Your task to perform on an android device: install app "Microsoft Outlook" Image 0: 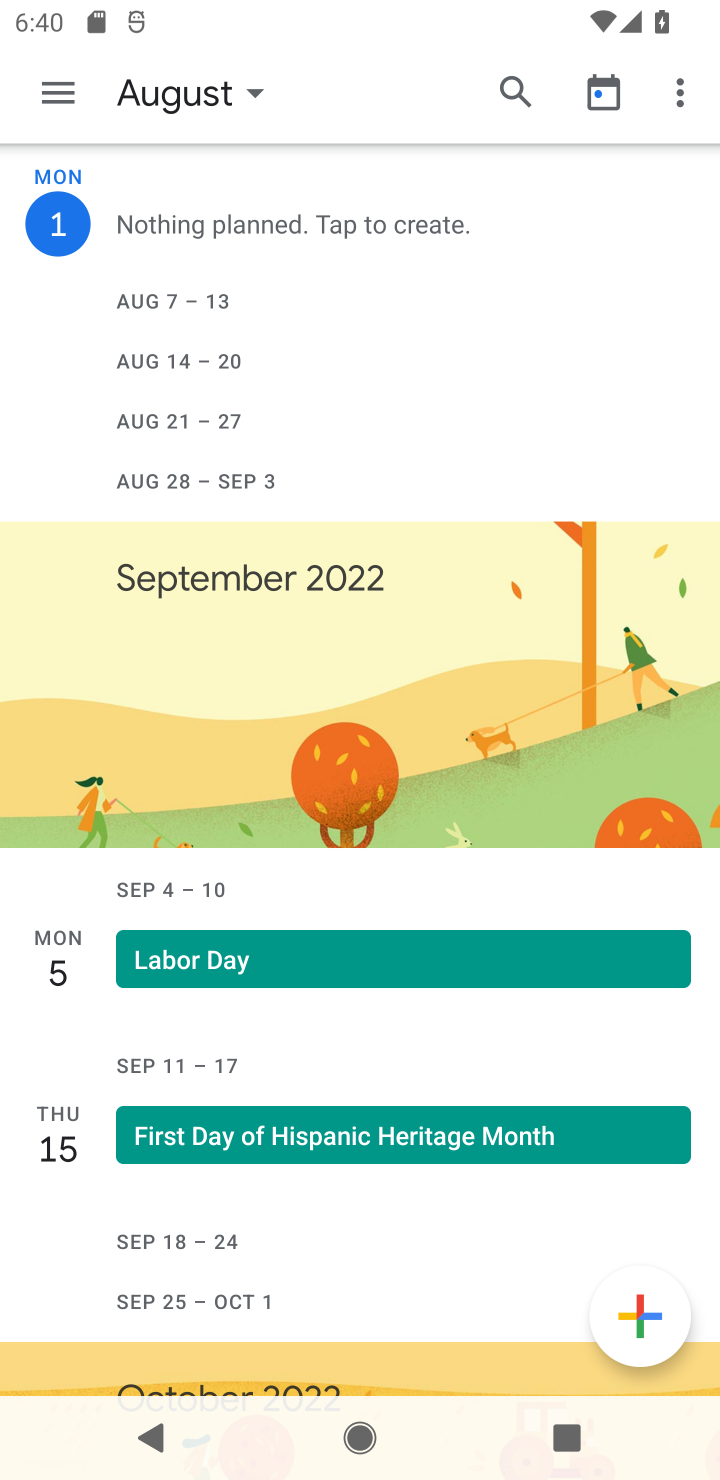
Step 0: press home button
Your task to perform on an android device: install app "Microsoft Outlook" Image 1: 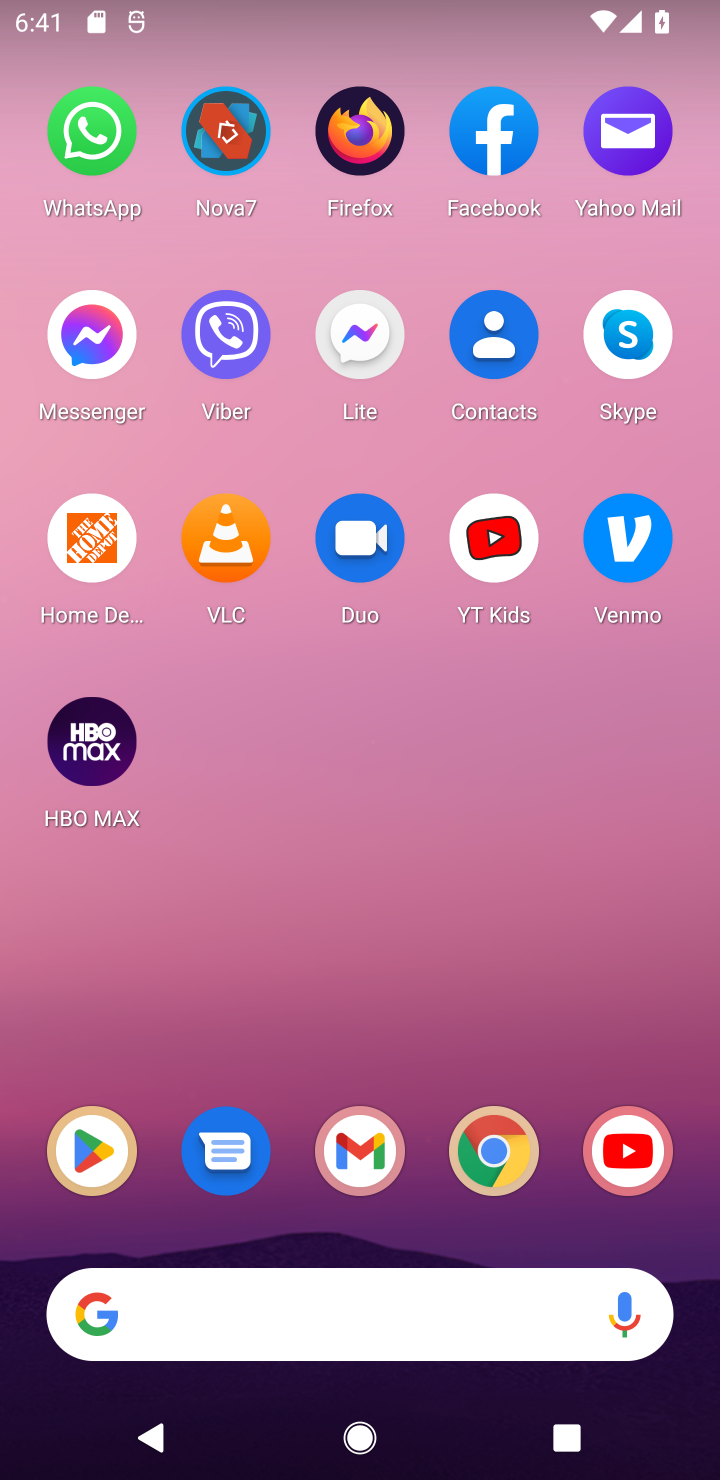
Step 1: click (111, 1156)
Your task to perform on an android device: install app "Microsoft Outlook" Image 2: 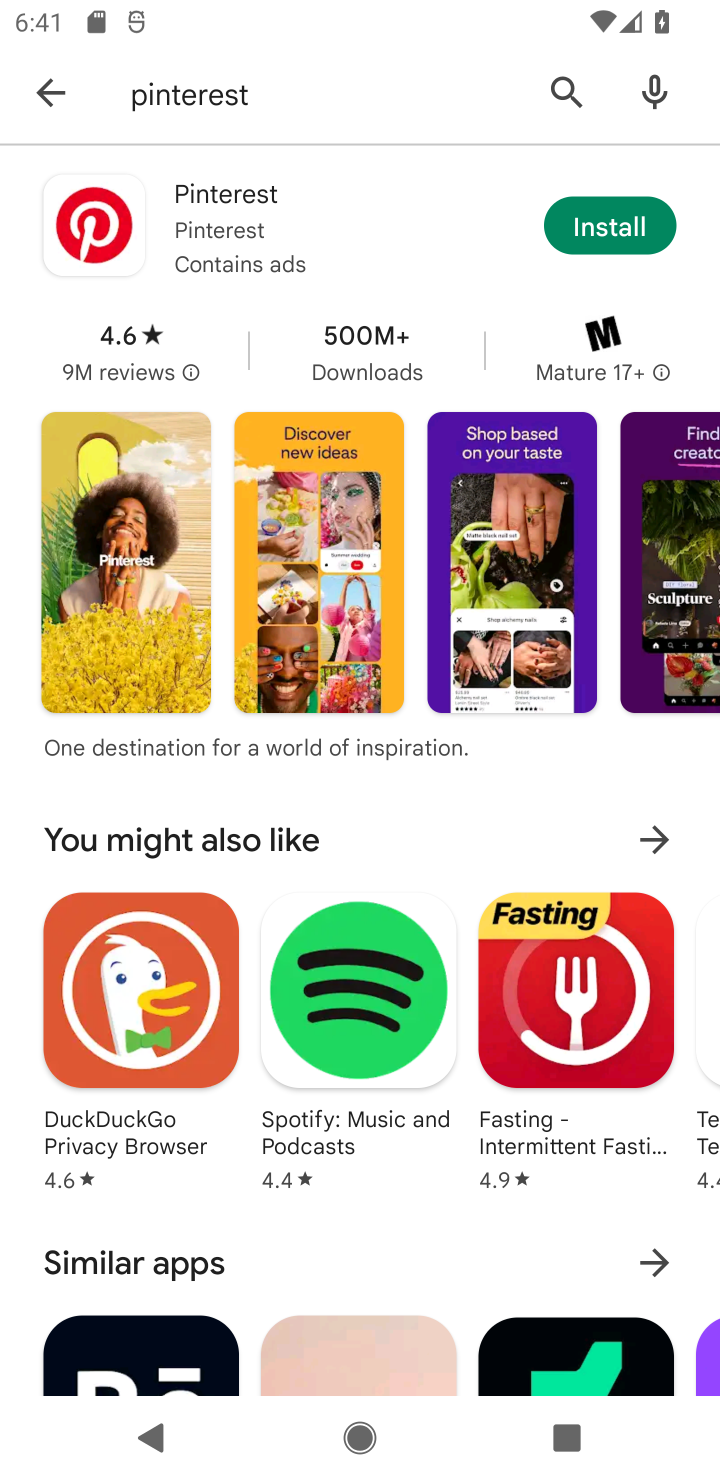
Step 2: click (547, 92)
Your task to perform on an android device: install app "Microsoft Outlook" Image 3: 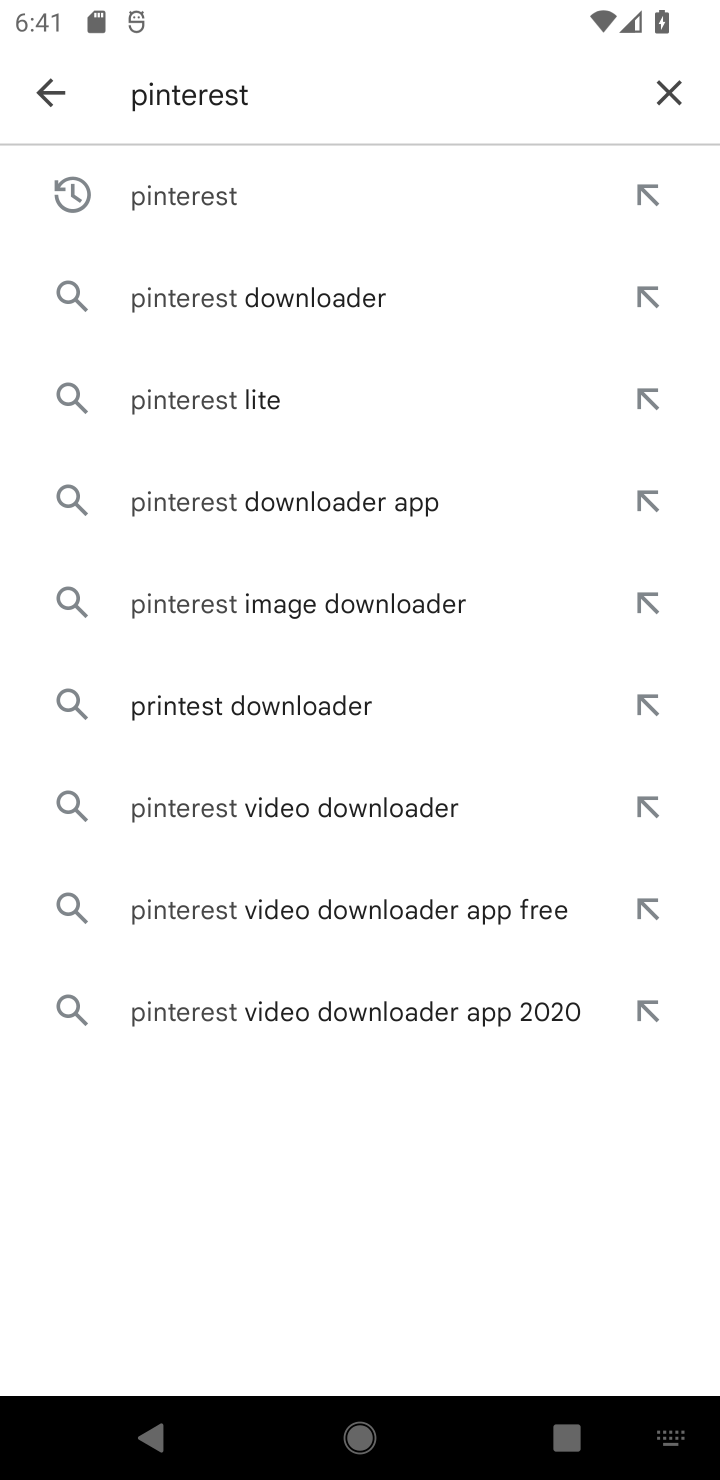
Step 3: click (670, 86)
Your task to perform on an android device: install app "Microsoft Outlook" Image 4: 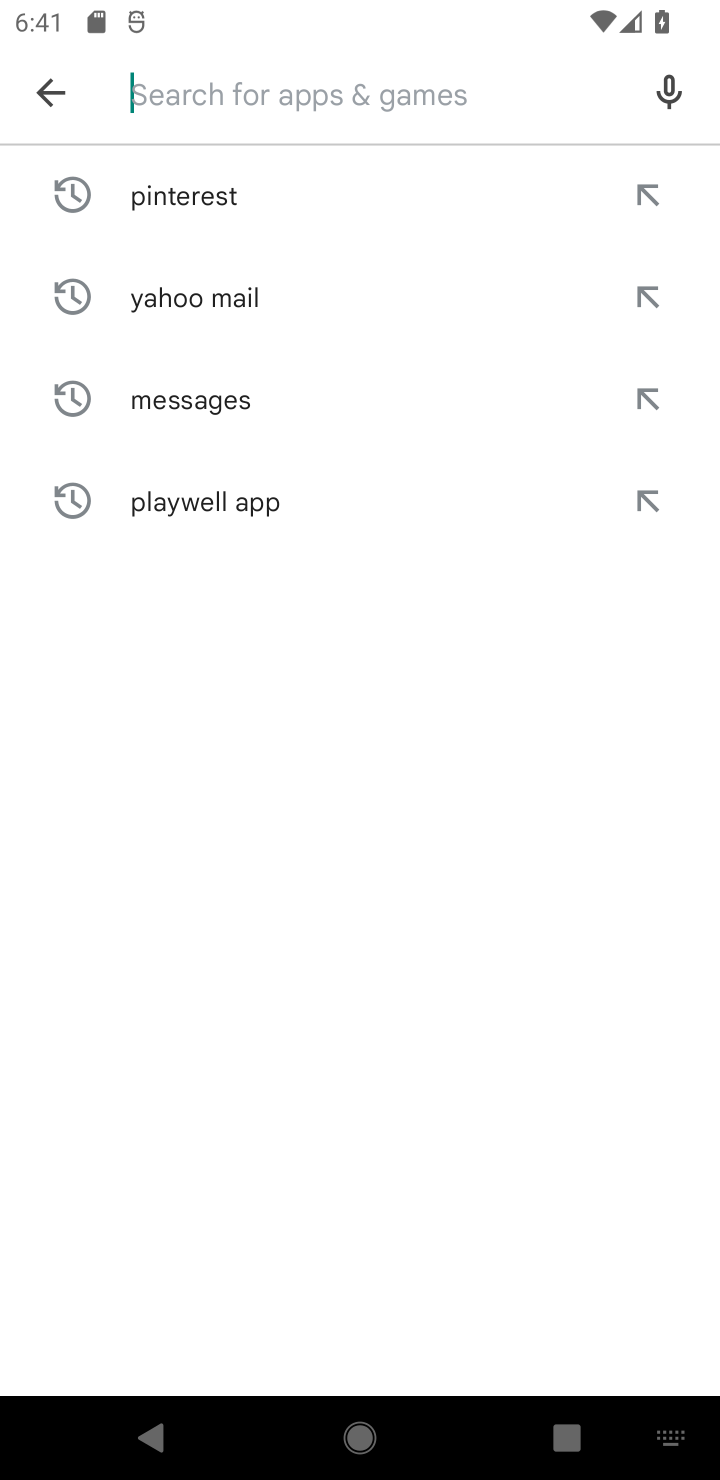
Step 4: type "Microsoft Outlook"
Your task to perform on an android device: install app "Microsoft Outlook" Image 5: 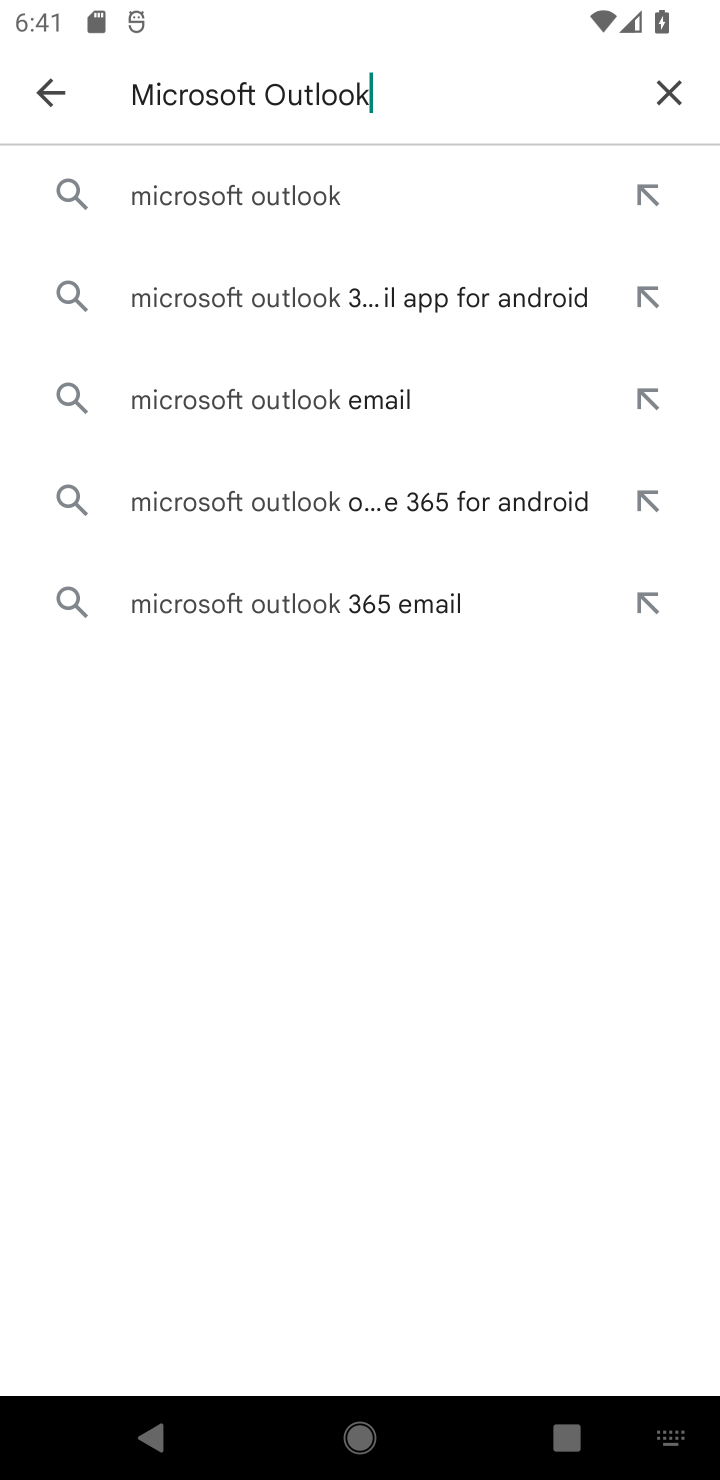
Step 5: click (198, 200)
Your task to perform on an android device: install app "Microsoft Outlook" Image 6: 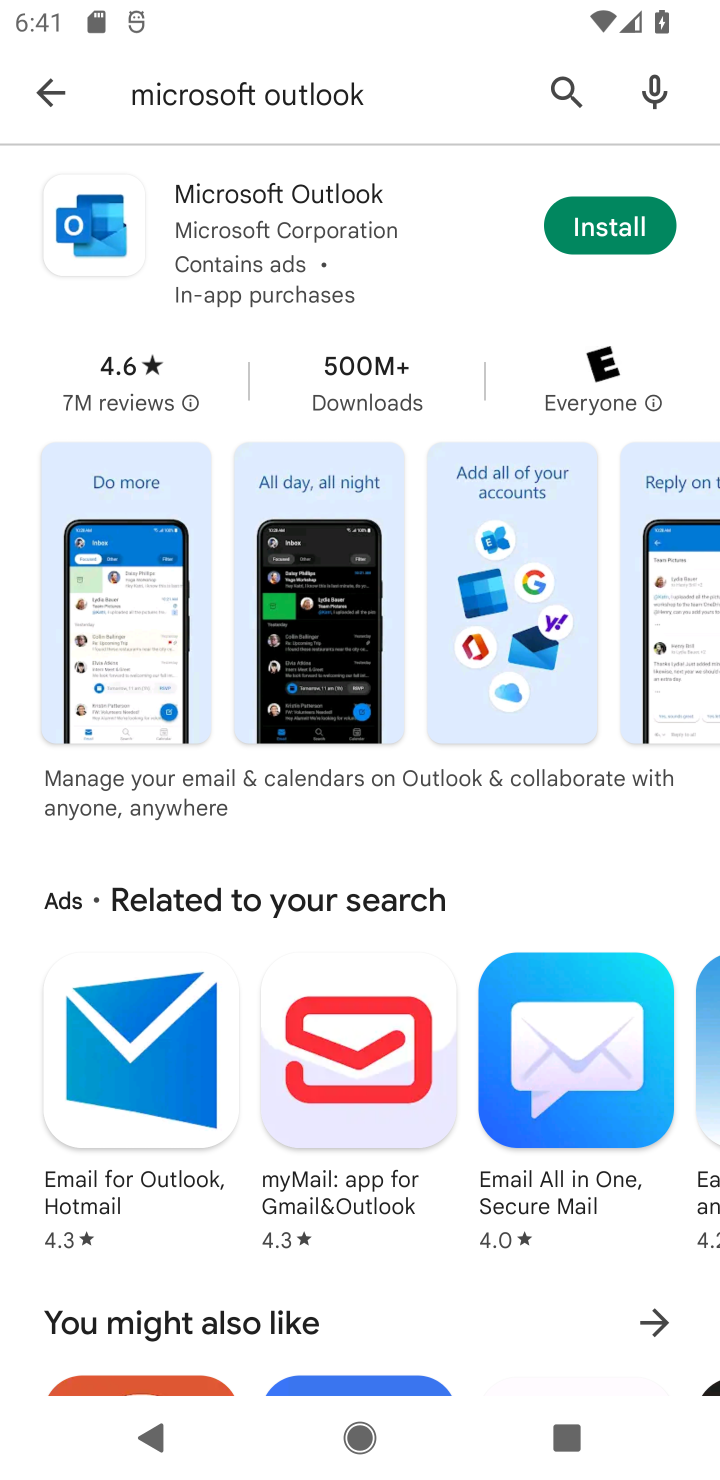
Step 6: click (618, 229)
Your task to perform on an android device: install app "Microsoft Outlook" Image 7: 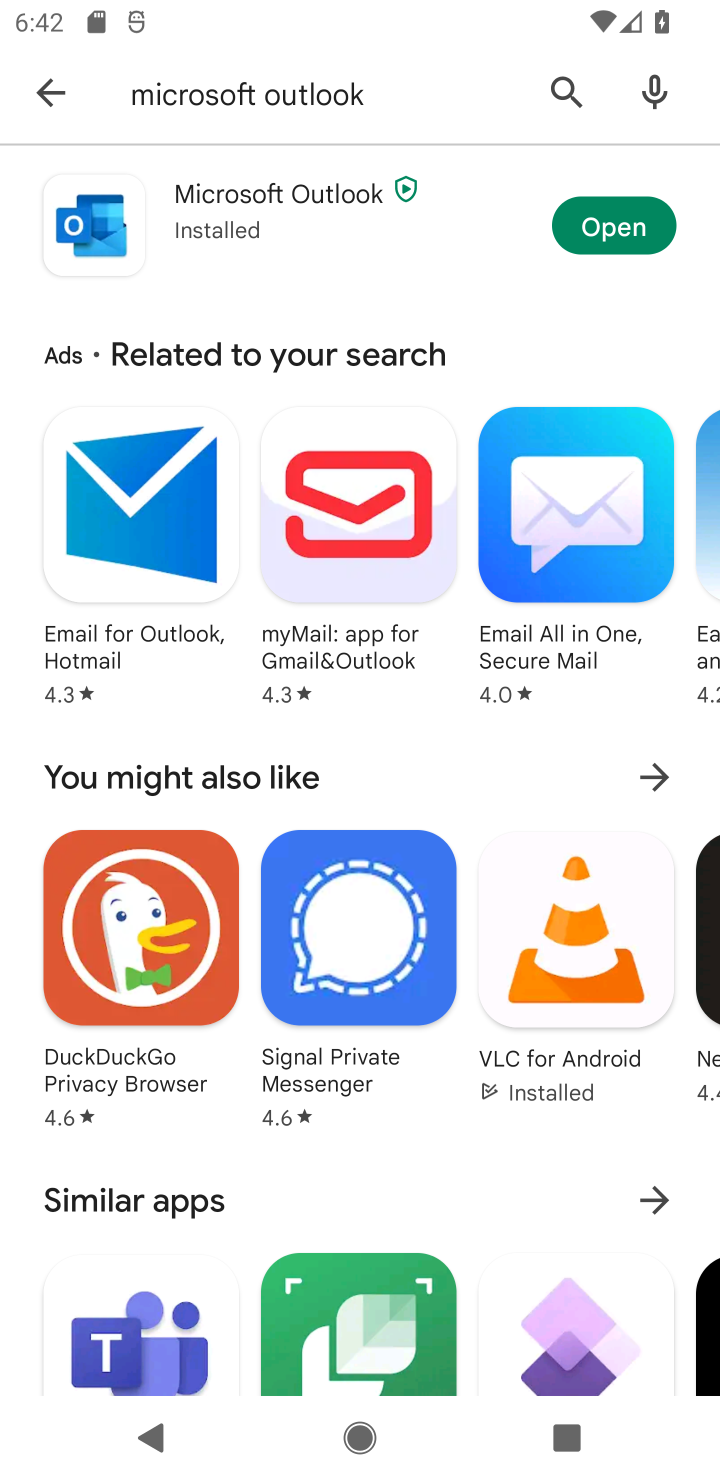
Step 7: task complete